Your task to perform on an android device: move an email to a new category in the gmail app Image 0: 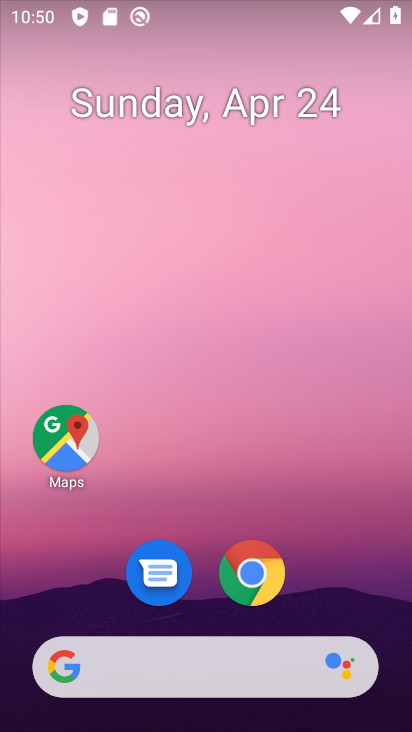
Step 0: drag from (227, 725) to (207, 115)
Your task to perform on an android device: move an email to a new category in the gmail app Image 1: 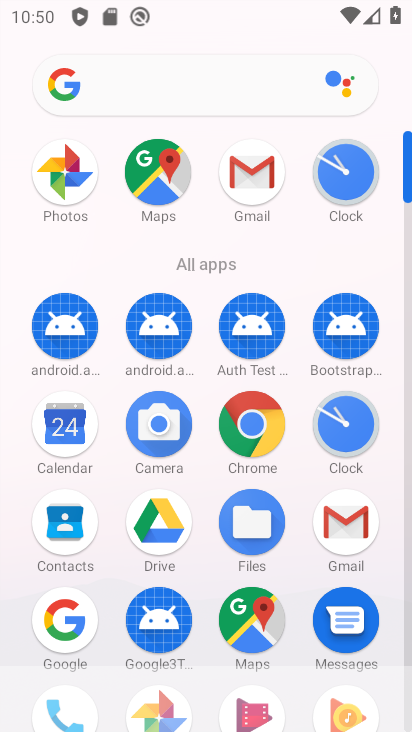
Step 1: click (349, 523)
Your task to perform on an android device: move an email to a new category in the gmail app Image 2: 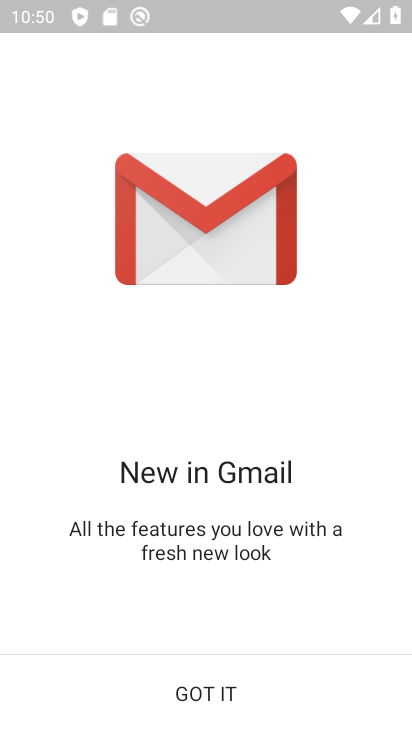
Step 2: click (202, 694)
Your task to perform on an android device: move an email to a new category in the gmail app Image 3: 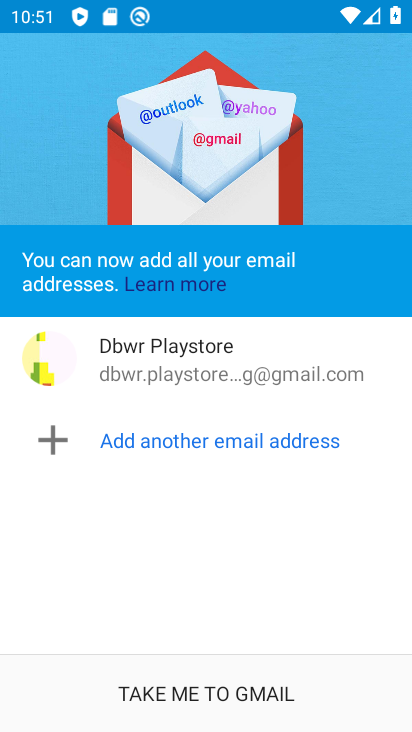
Step 3: click (216, 687)
Your task to perform on an android device: move an email to a new category in the gmail app Image 4: 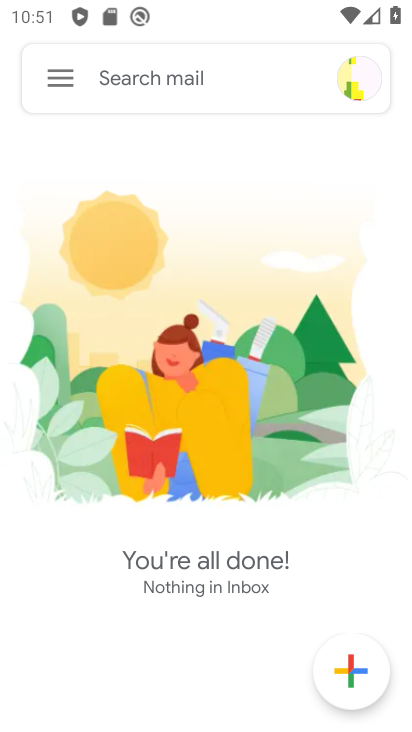
Step 4: task complete